Your task to perform on an android device: change notifications settings Image 0: 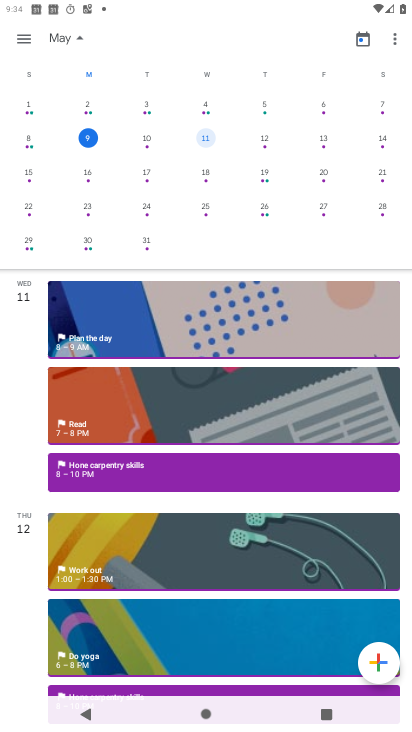
Step 0: press home button
Your task to perform on an android device: change notifications settings Image 1: 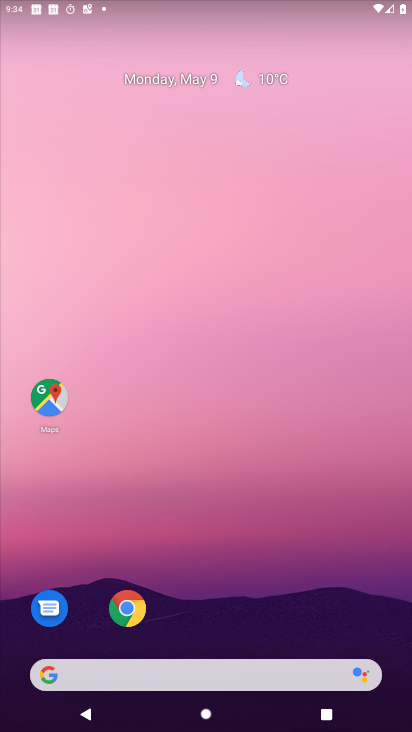
Step 1: drag from (312, 554) to (306, 30)
Your task to perform on an android device: change notifications settings Image 2: 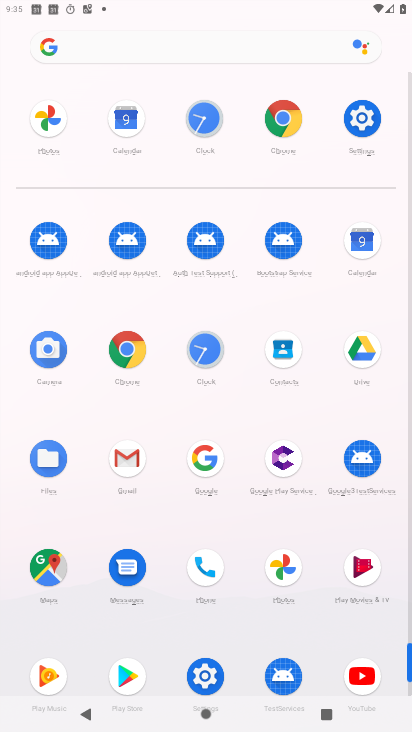
Step 2: click (361, 108)
Your task to perform on an android device: change notifications settings Image 3: 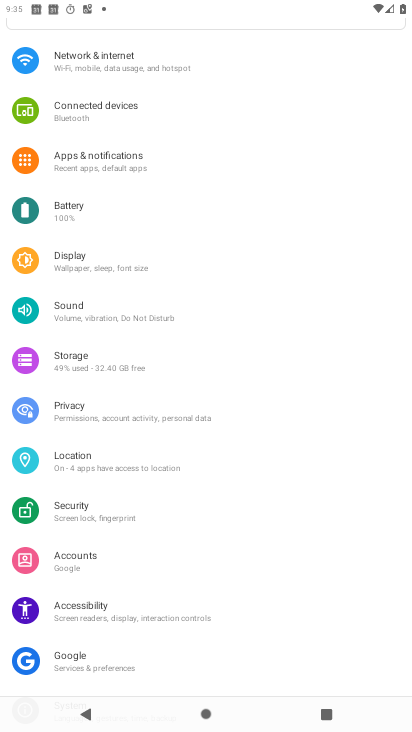
Step 3: click (71, 169)
Your task to perform on an android device: change notifications settings Image 4: 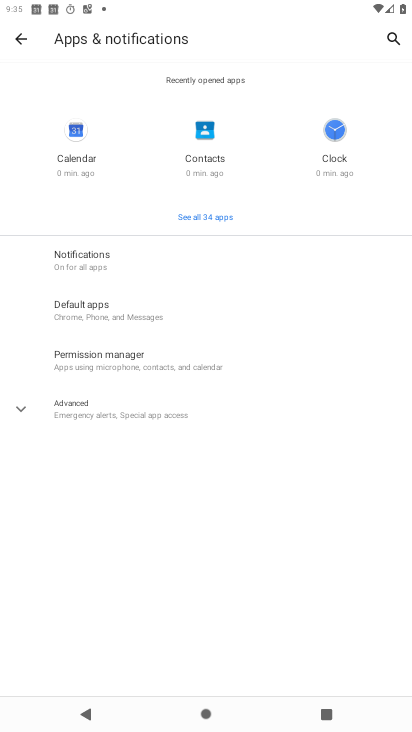
Step 4: click (72, 258)
Your task to perform on an android device: change notifications settings Image 5: 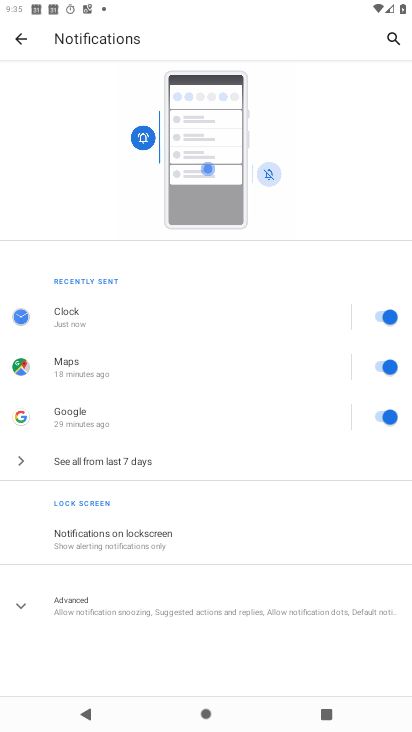
Step 5: click (375, 314)
Your task to perform on an android device: change notifications settings Image 6: 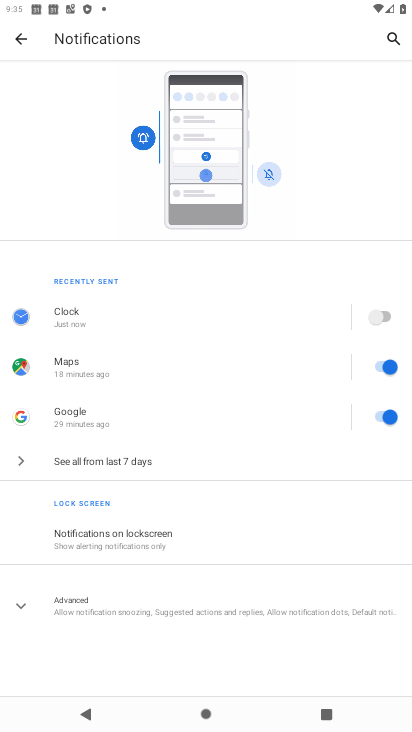
Step 6: task complete